Your task to perform on an android device: Go to Google maps Image 0: 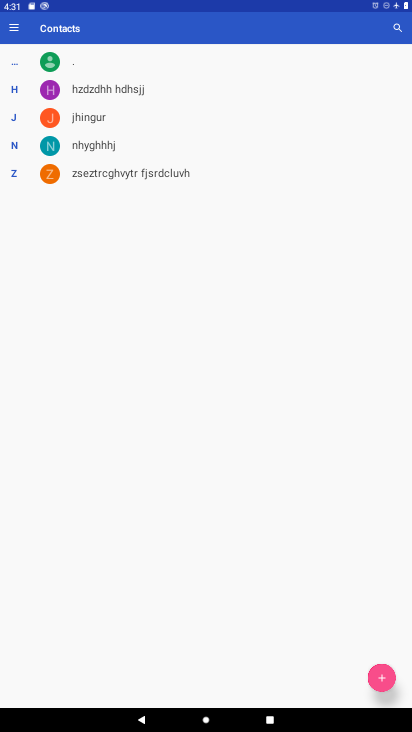
Step 0: press home button
Your task to perform on an android device: Go to Google maps Image 1: 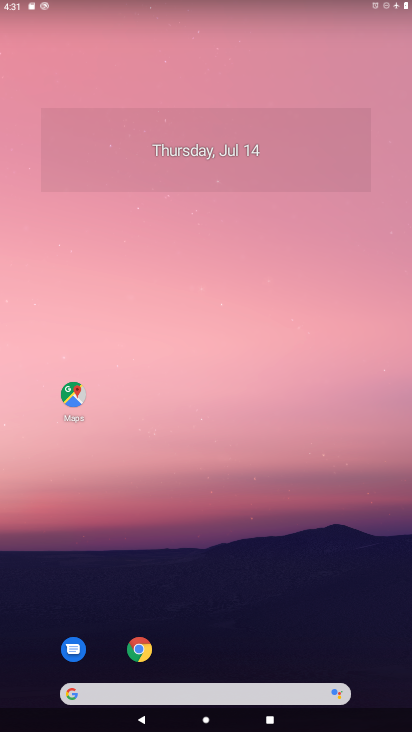
Step 1: click (70, 380)
Your task to perform on an android device: Go to Google maps Image 2: 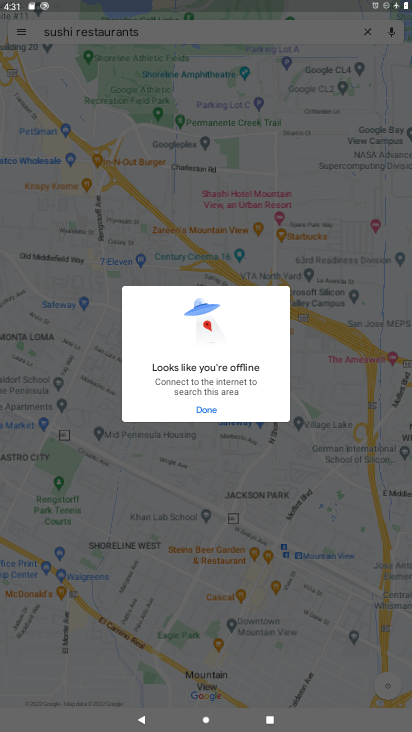
Step 2: click (207, 409)
Your task to perform on an android device: Go to Google maps Image 3: 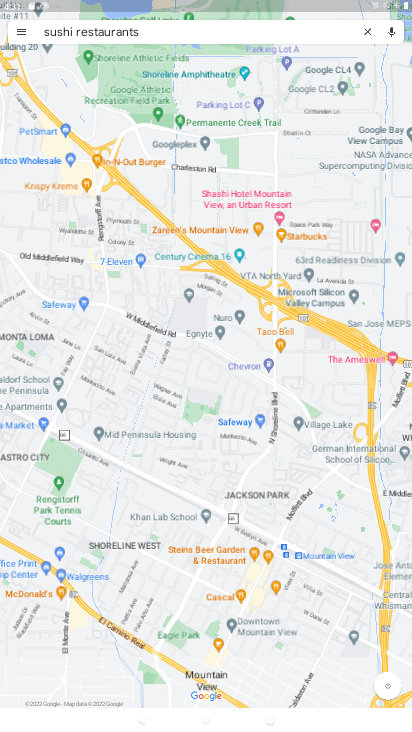
Step 3: task complete